Your task to perform on an android device: search for starred emails in the gmail app Image 0: 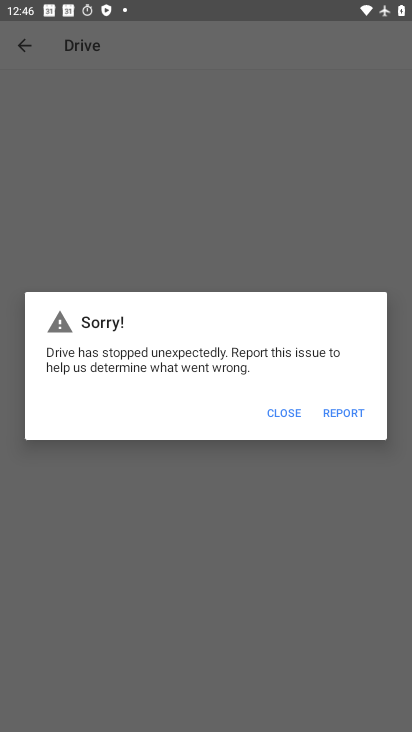
Step 0: press home button
Your task to perform on an android device: search for starred emails in the gmail app Image 1: 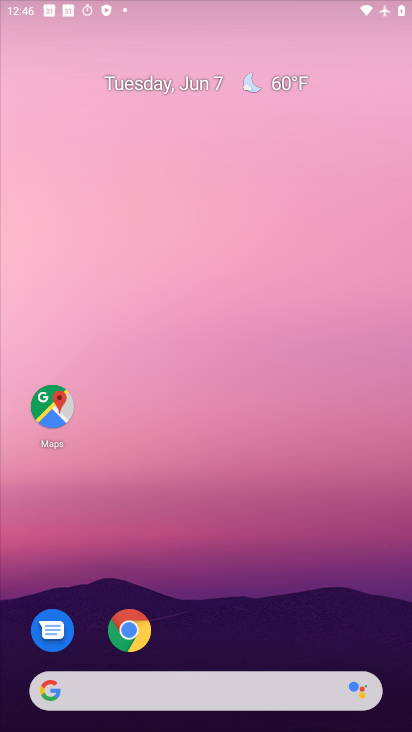
Step 1: drag from (337, 625) to (241, 61)
Your task to perform on an android device: search for starred emails in the gmail app Image 2: 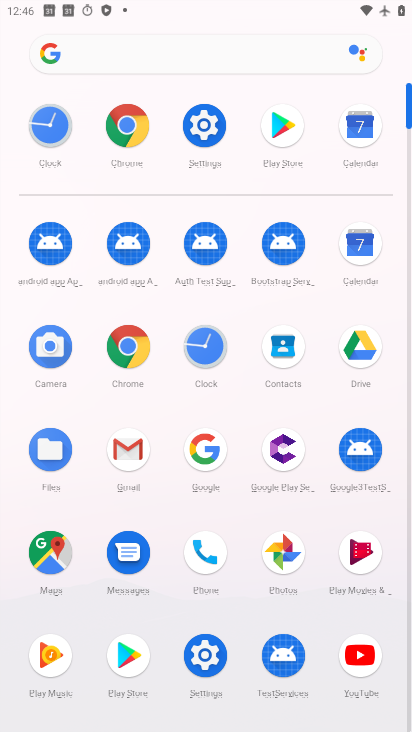
Step 2: click (137, 456)
Your task to perform on an android device: search for starred emails in the gmail app Image 3: 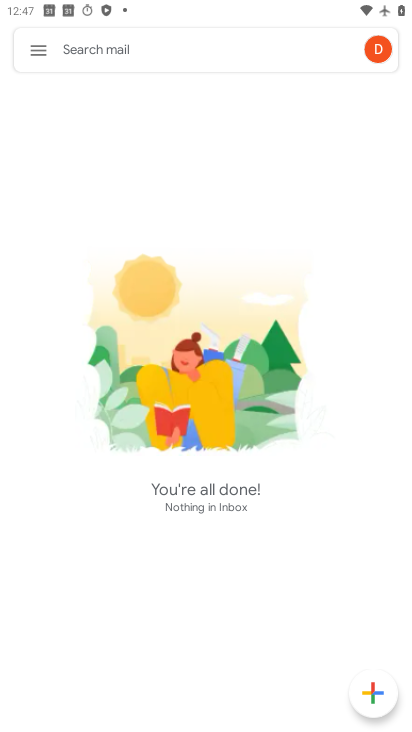
Step 3: click (34, 56)
Your task to perform on an android device: search for starred emails in the gmail app Image 4: 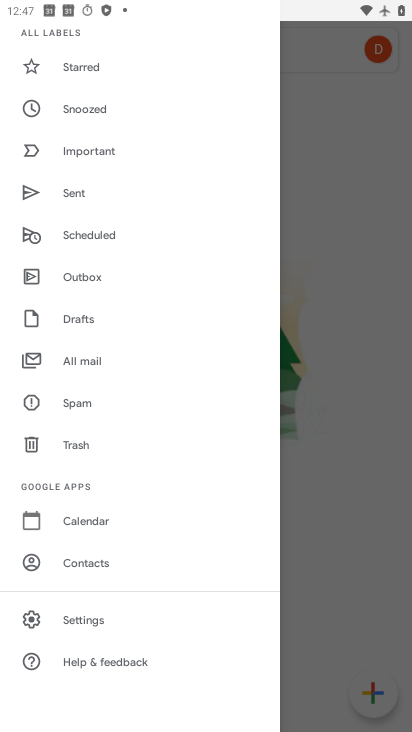
Step 4: click (101, 70)
Your task to perform on an android device: search for starred emails in the gmail app Image 5: 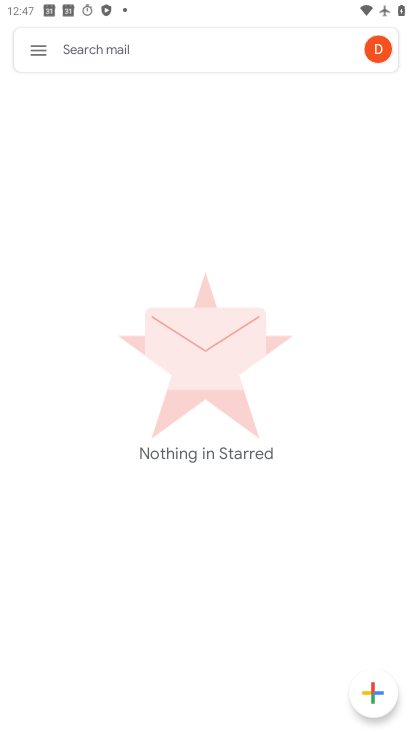
Step 5: task complete